Your task to perform on an android device: Open Maps and search for coffee Image 0: 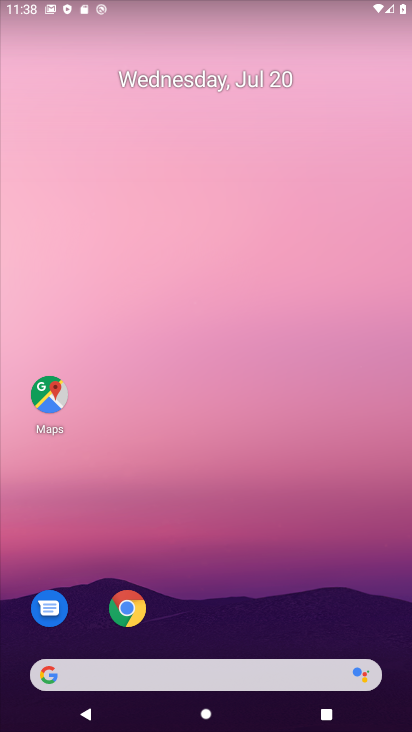
Step 0: click (40, 394)
Your task to perform on an android device: Open Maps and search for coffee Image 1: 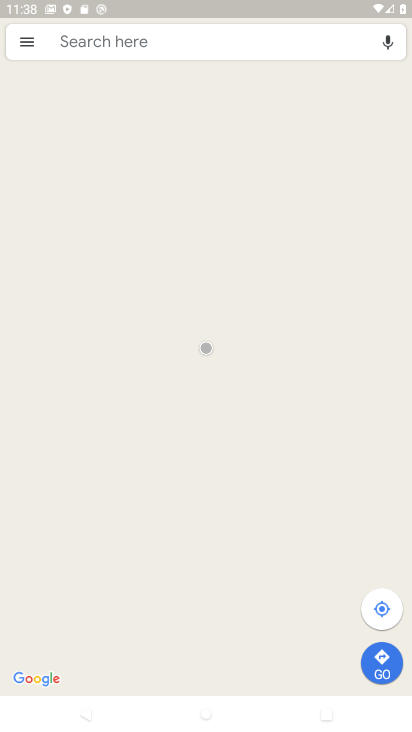
Step 1: click (120, 38)
Your task to perform on an android device: Open Maps and search for coffee Image 2: 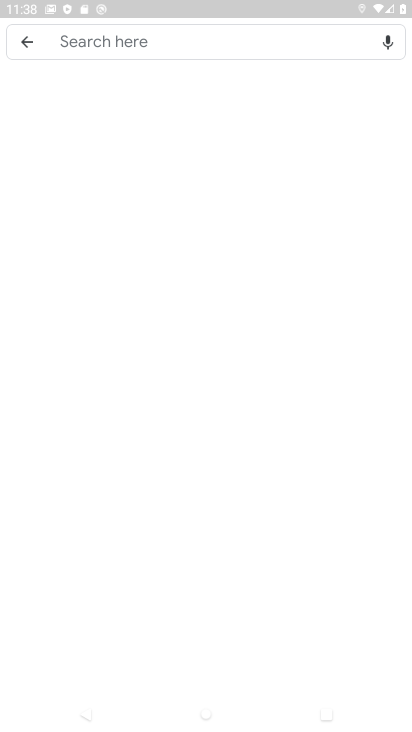
Step 2: type "coffee"
Your task to perform on an android device: Open Maps and search for coffee Image 3: 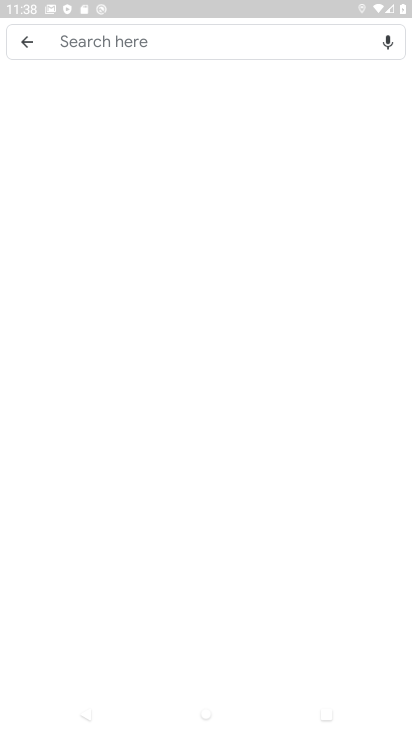
Step 3: click (118, 40)
Your task to perform on an android device: Open Maps and search for coffee Image 4: 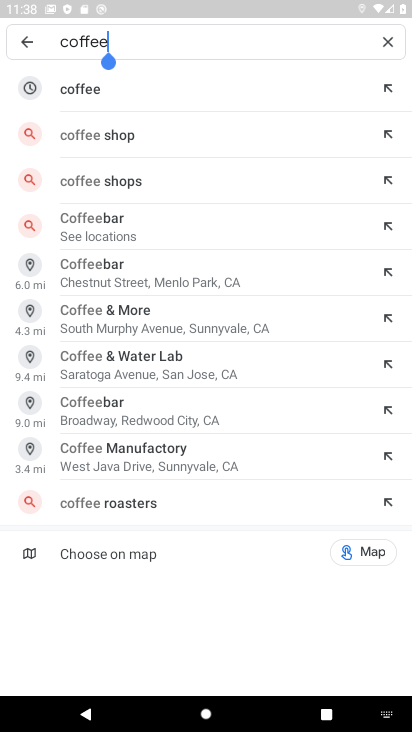
Step 4: press enter
Your task to perform on an android device: Open Maps and search for coffee Image 5: 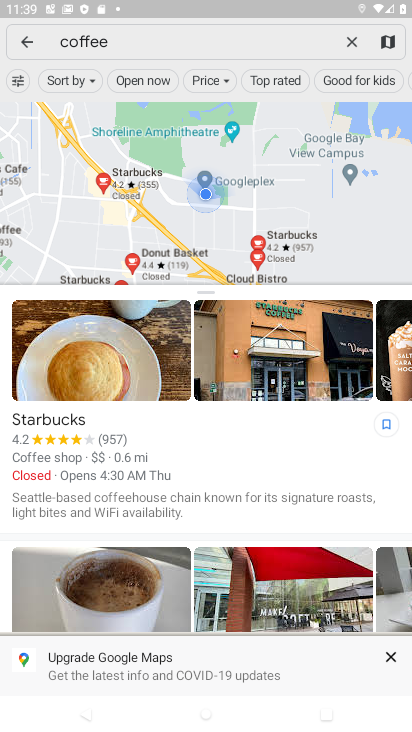
Step 5: task complete